Your task to perform on an android device: What is the news today? Image 0: 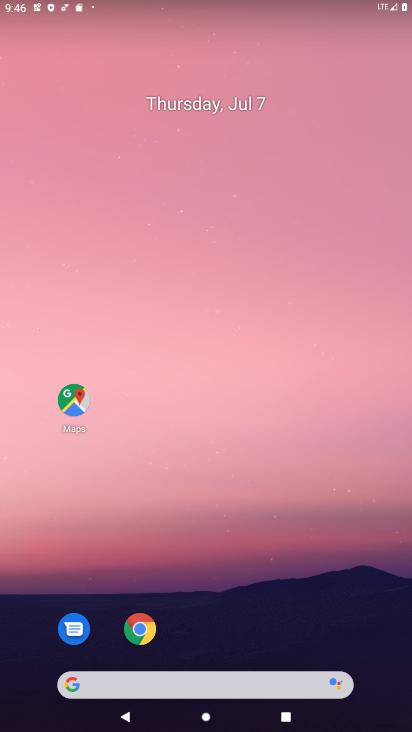
Step 0: drag from (18, 289) to (407, 334)
Your task to perform on an android device: What is the news today? Image 1: 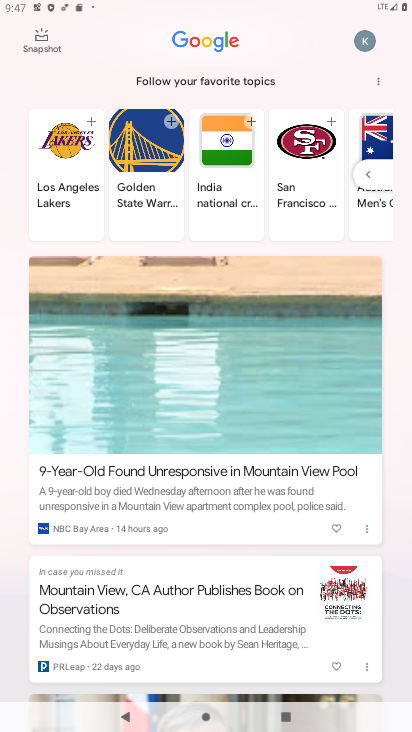
Step 1: task complete